Your task to perform on an android device: turn on wifi Image 0: 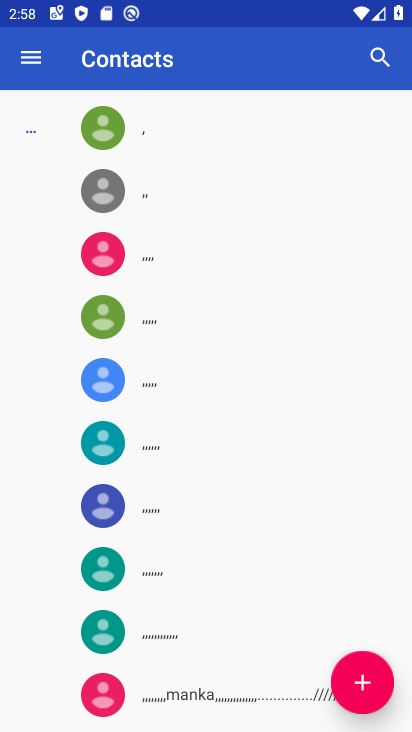
Step 0: press home button
Your task to perform on an android device: turn on wifi Image 1: 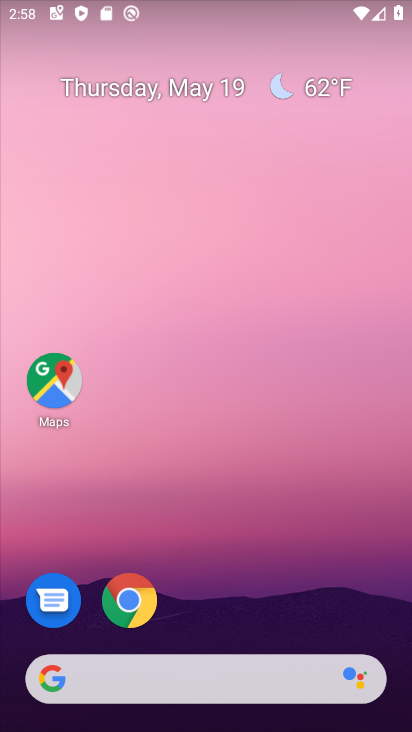
Step 1: task complete